Your task to perform on an android device: Open Yahoo.com Image 0: 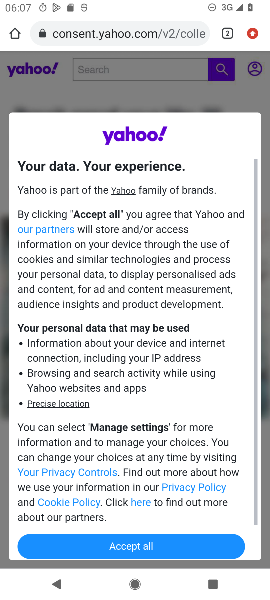
Step 0: press home button
Your task to perform on an android device: Open Yahoo.com Image 1: 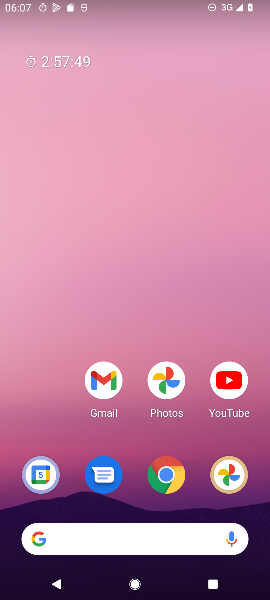
Step 1: drag from (53, 439) to (72, 198)
Your task to perform on an android device: Open Yahoo.com Image 2: 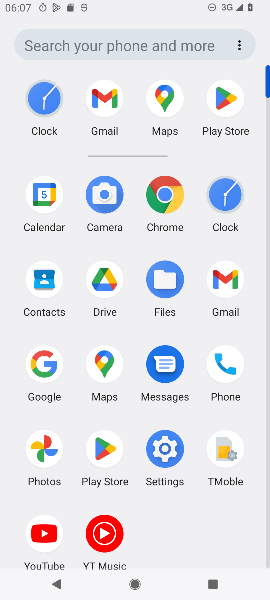
Step 2: click (161, 193)
Your task to perform on an android device: Open Yahoo.com Image 3: 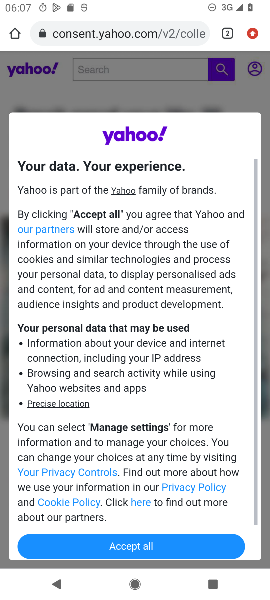
Step 3: task complete